Your task to perform on an android device: turn off translation in the chrome app Image 0: 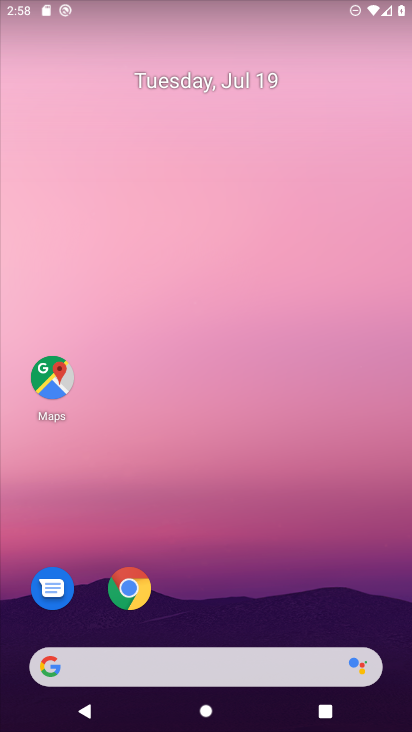
Step 0: click (131, 583)
Your task to perform on an android device: turn off translation in the chrome app Image 1: 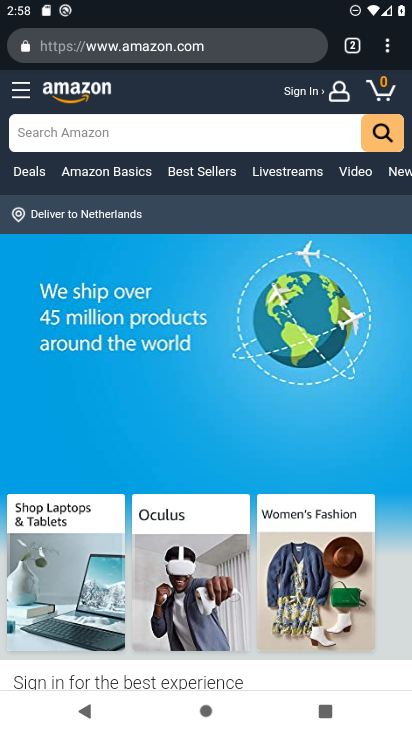
Step 1: click (386, 42)
Your task to perform on an android device: turn off translation in the chrome app Image 2: 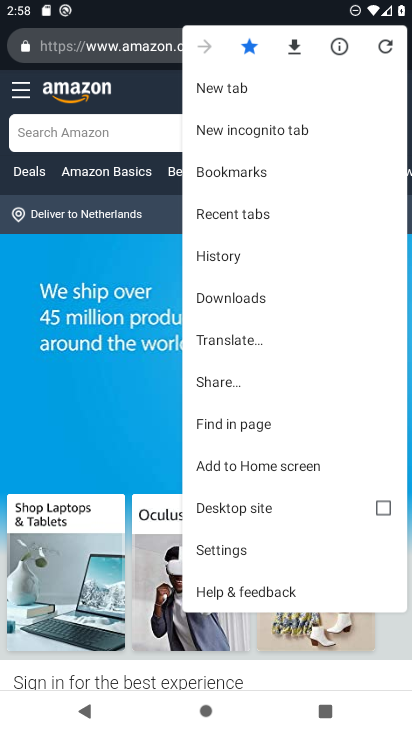
Step 2: click (219, 559)
Your task to perform on an android device: turn off translation in the chrome app Image 3: 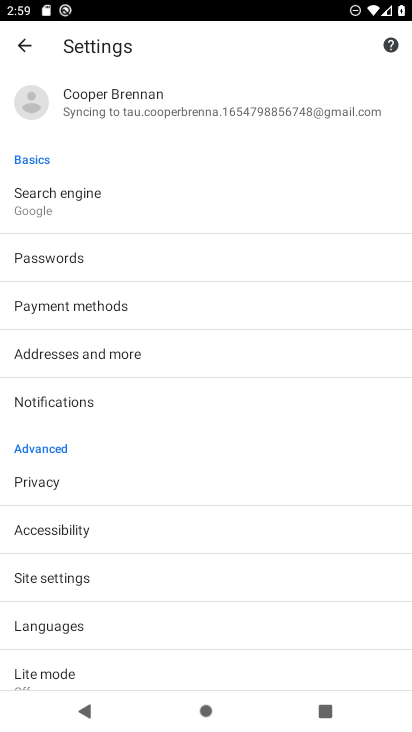
Step 3: click (96, 623)
Your task to perform on an android device: turn off translation in the chrome app Image 4: 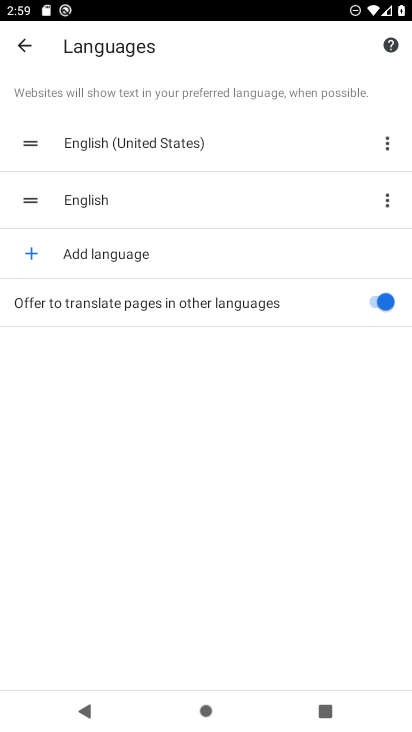
Step 4: click (375, 301)
Your task to perform on an android device: turn off translation in the chrome app Image 5: 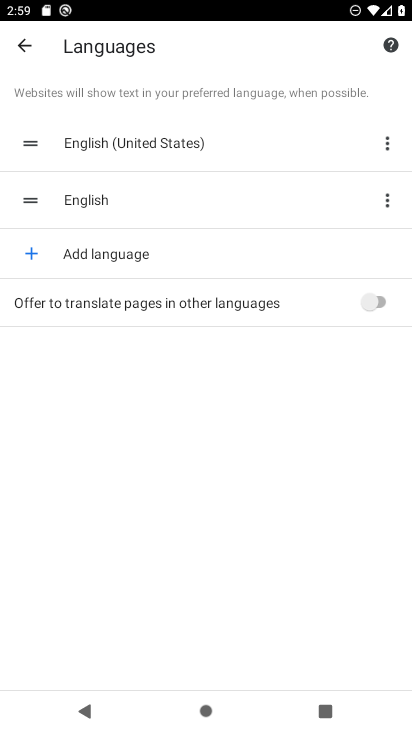
Step 5: task complete